Your task to perform on an android device: allow cookies in the chrome app Image 0: 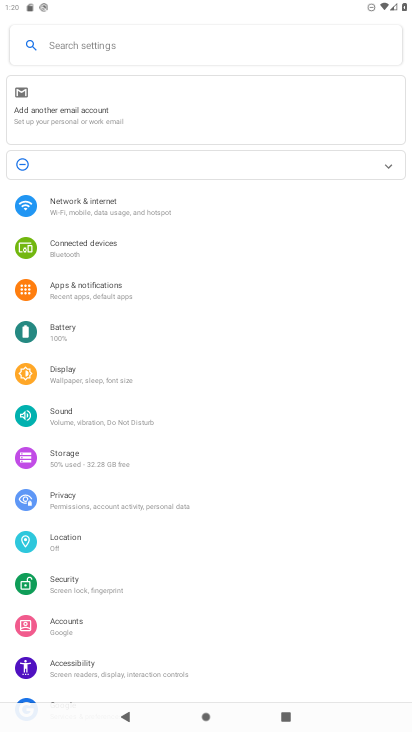
Step 0: press home button
Your task to perform on an android device: allow cookies in the chrome app Image 1: 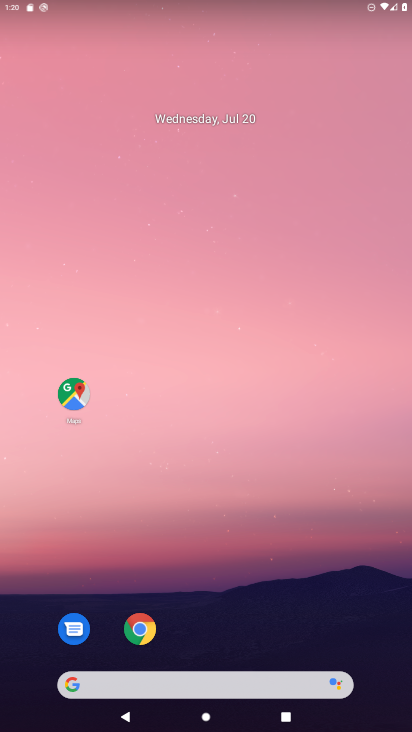
Step 1: click (137, 641)
Your task to perform on an android device: allow cookies in the chrome app Image 2: 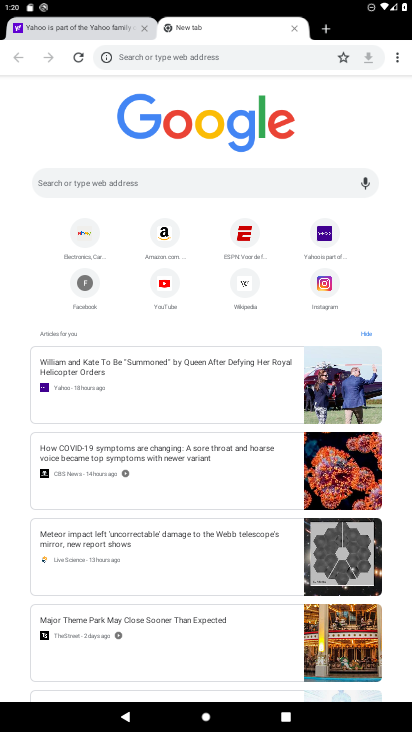
Step 2: click (399, 57)
Your task to perform on an android device: allow cookies in the chrome app Image 3: 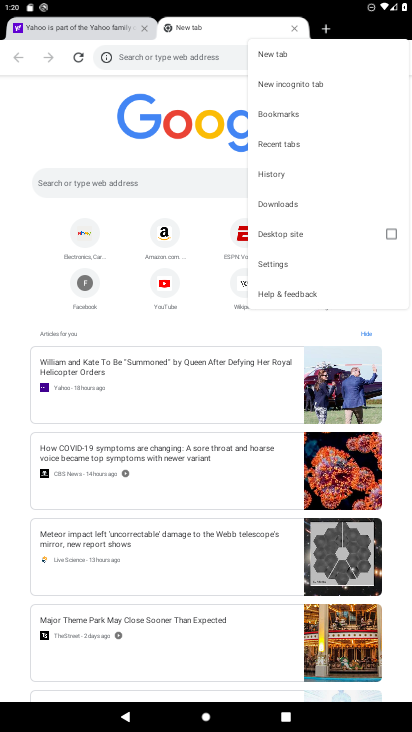
Step 3: click (274, 270)
Your task to perform on an android device: allow cookies in the chrome app Image 4: 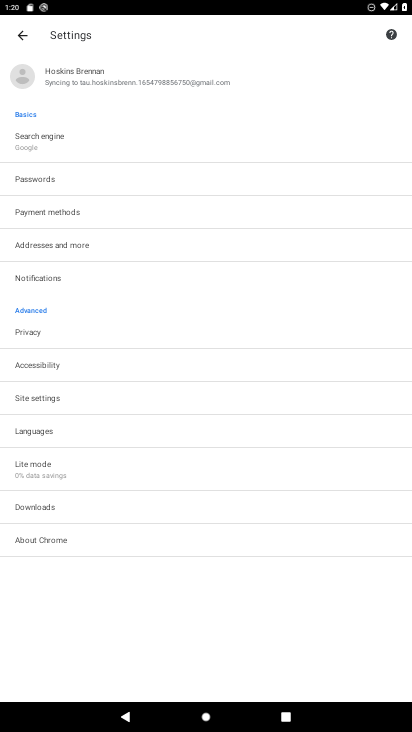
Step 4: click (42, 393)
Your task to perform on an android device: allow cookies in the chrome app Image 5: 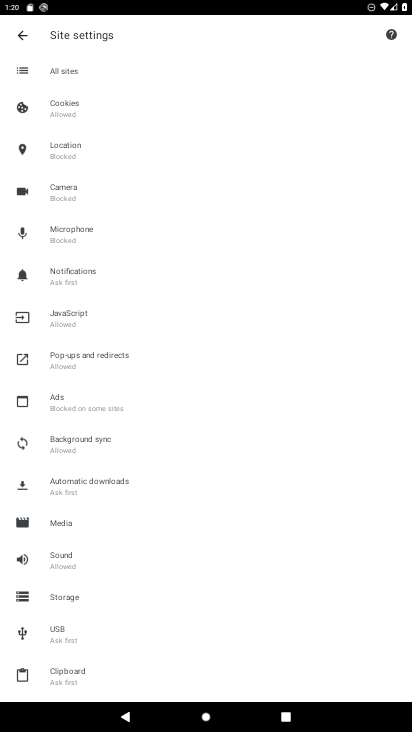
Step 5: click (67, 101)
Your task to perform on an android device: allow cookies in the chrome app Image 6: 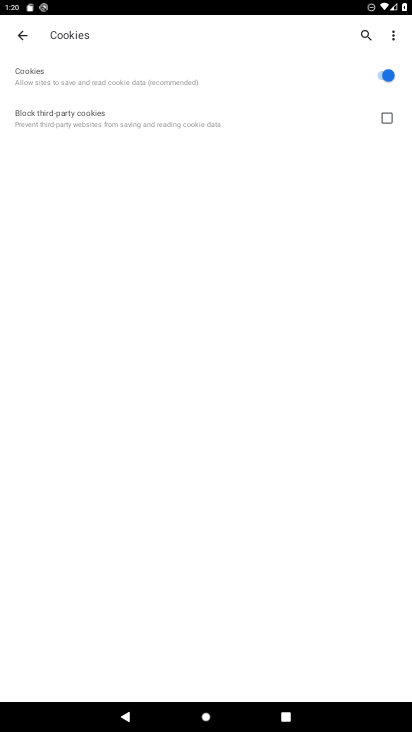
Step 6: task complete